Your task to perform on an android device: turn off notifications settings in the gmail app Image 0: 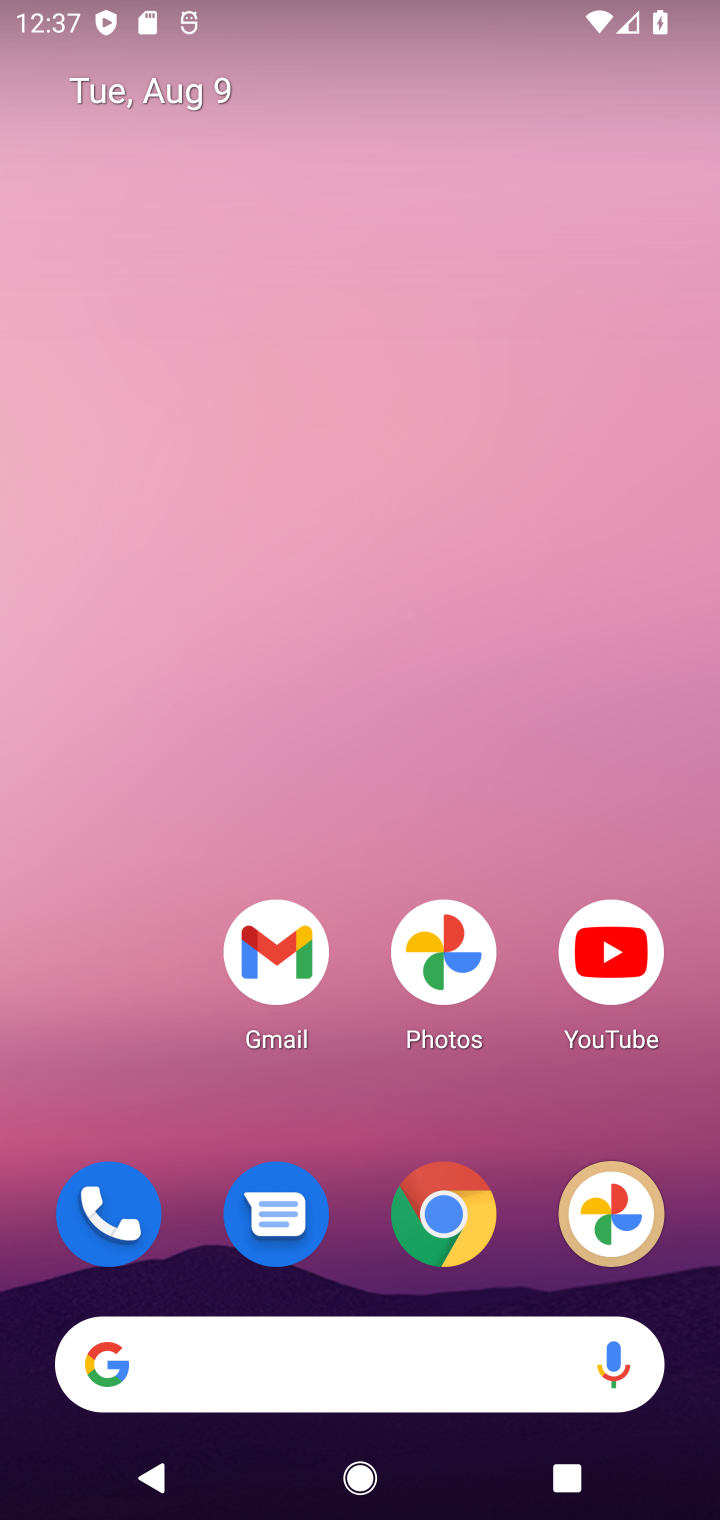
Step 0: click (351, 1248)
Your task to perform on an android device: turn off notifications settings in the gmail app Image 1: 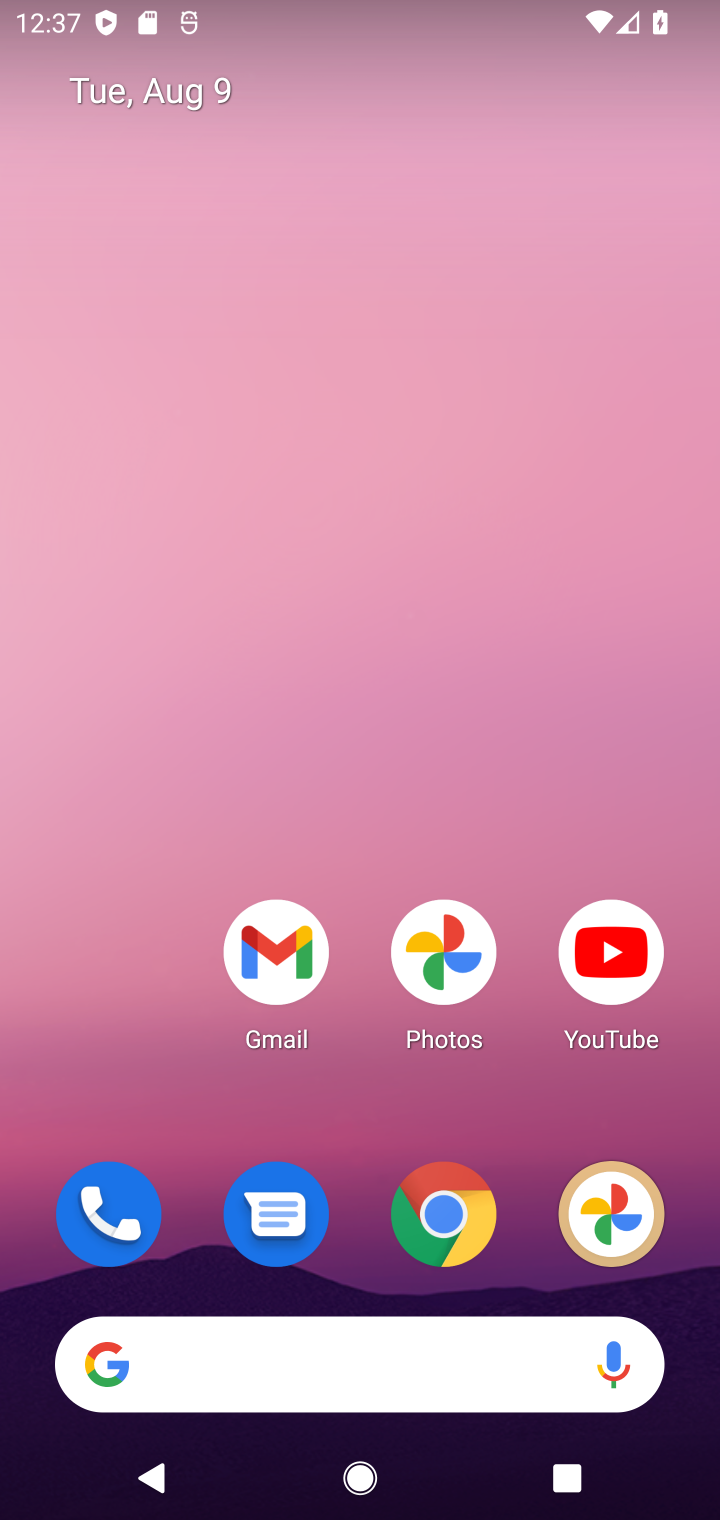
Step 1: drag from (358, 963) to (358, 150)
Your task to perform on an android device: turn off notifications settings in the gmail app Image 2: 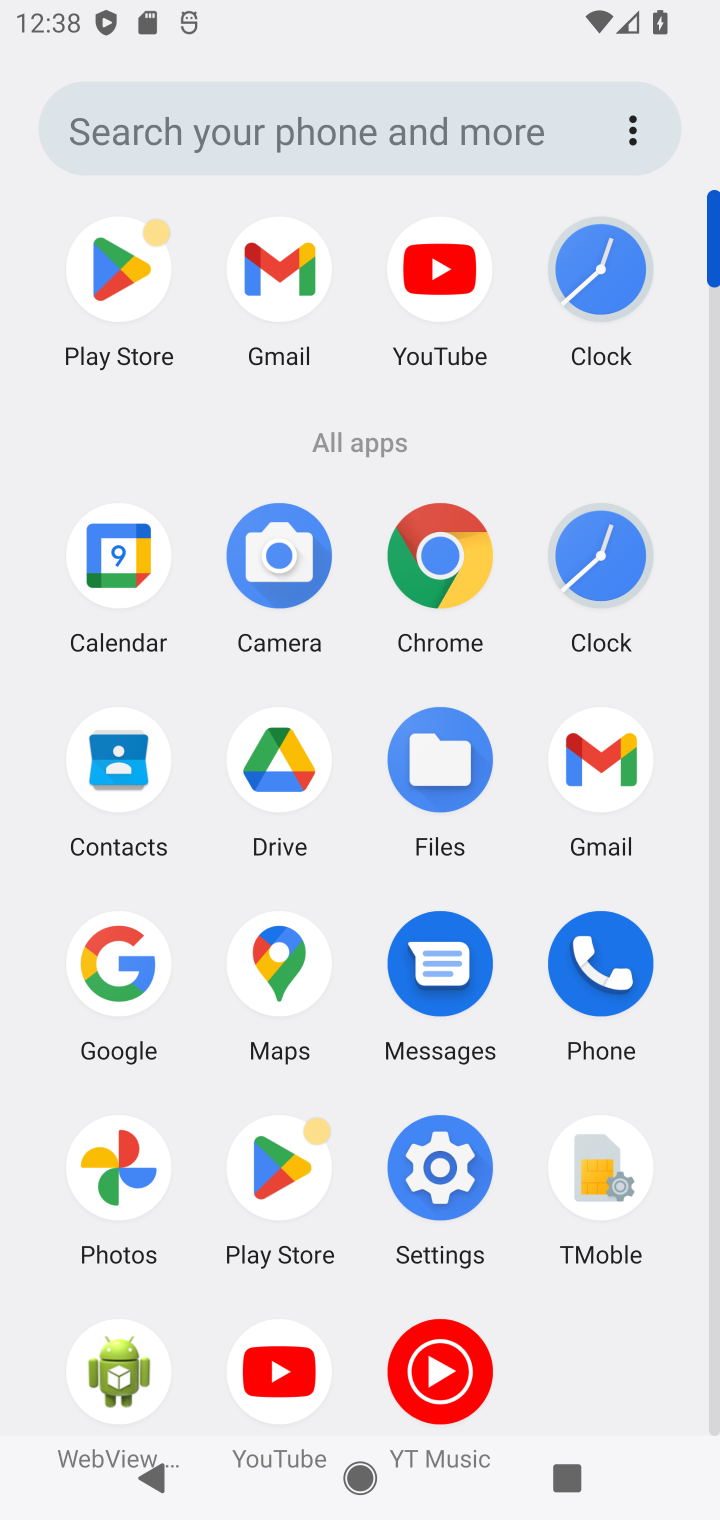
Step 2: click (282, 280)
Your task to perform on an android device: turn off notifications settings in the gmail app Image 3: 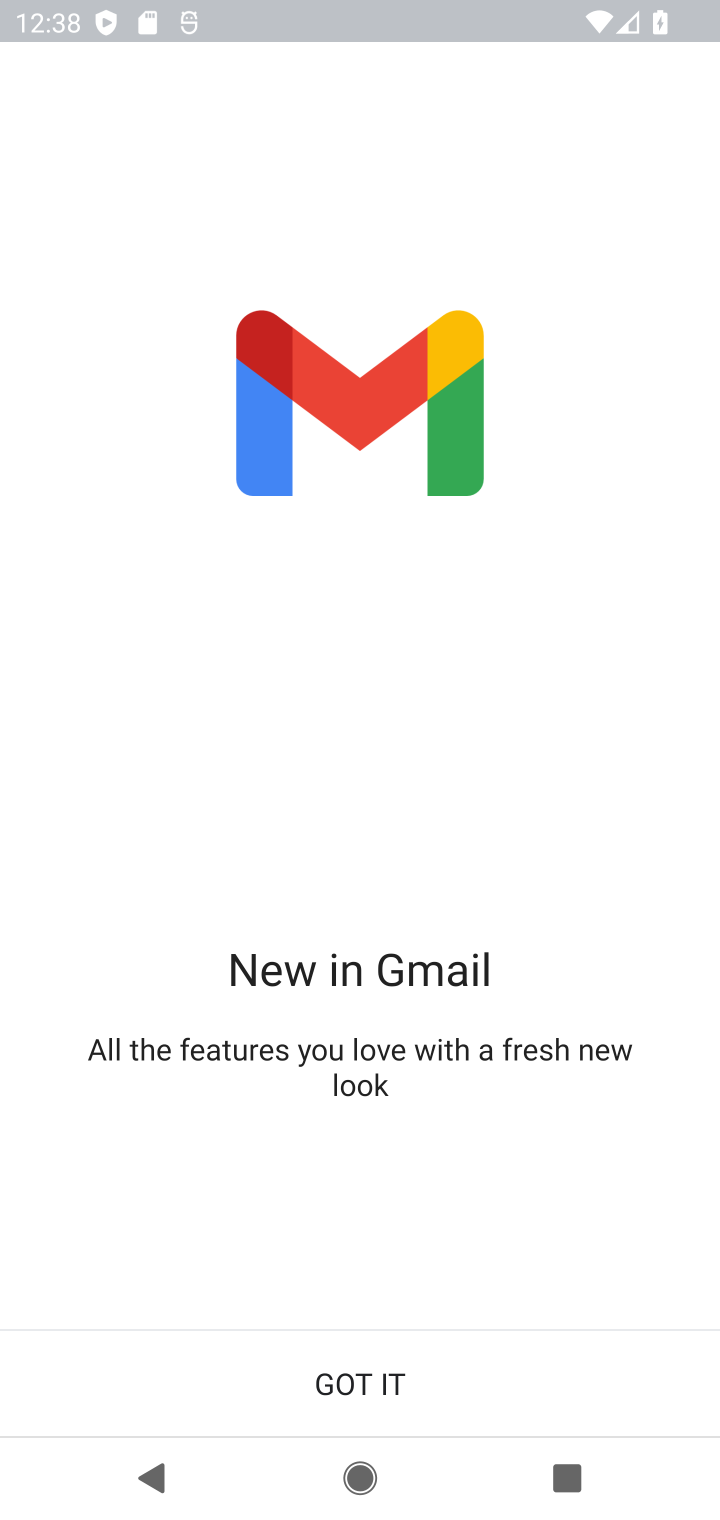
Step 3: click (382, 1358)
Your task to perform on an android device: turn off notifications settings in the gmail app Image 4: 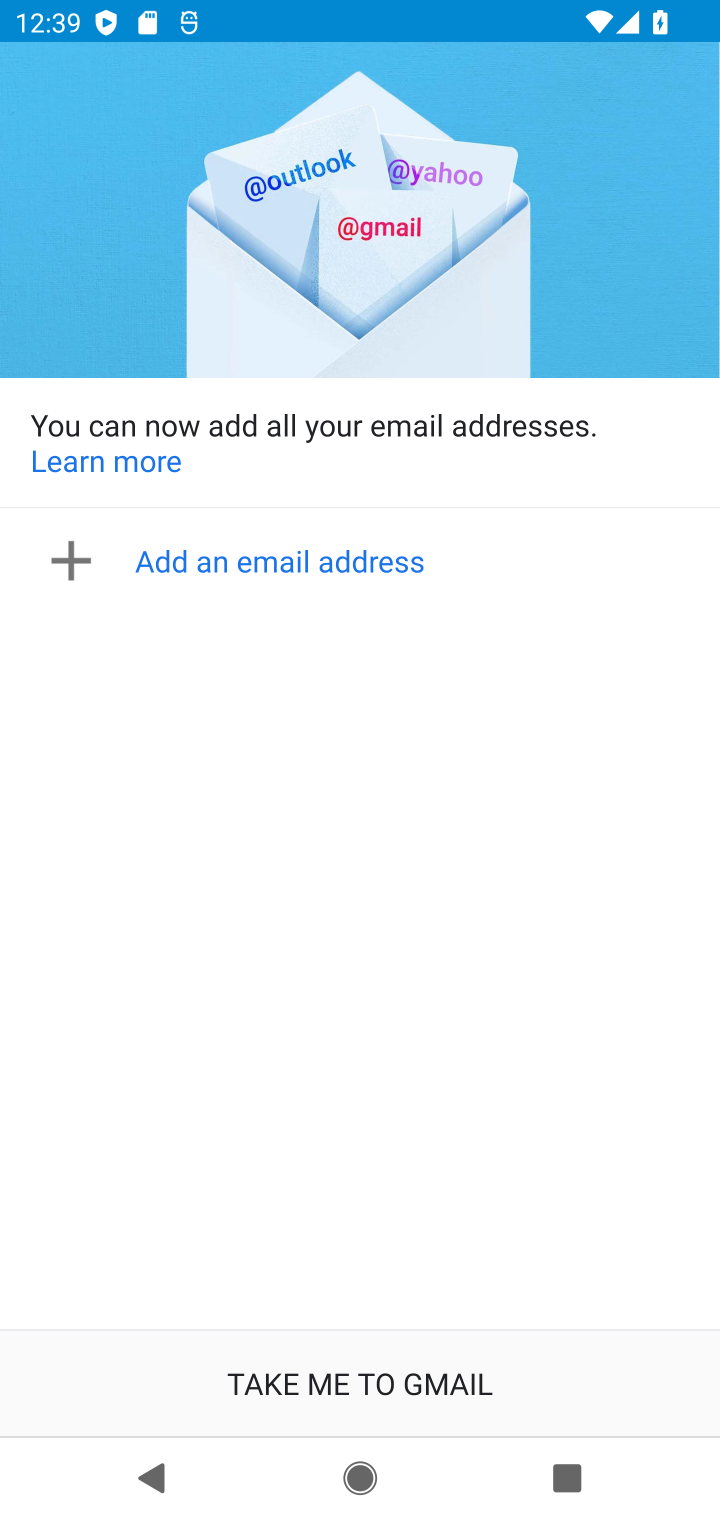
Step 4: click (382, 1358)
Your task to perform on an android device: turn off notifications settings in the gmail app Image 5: 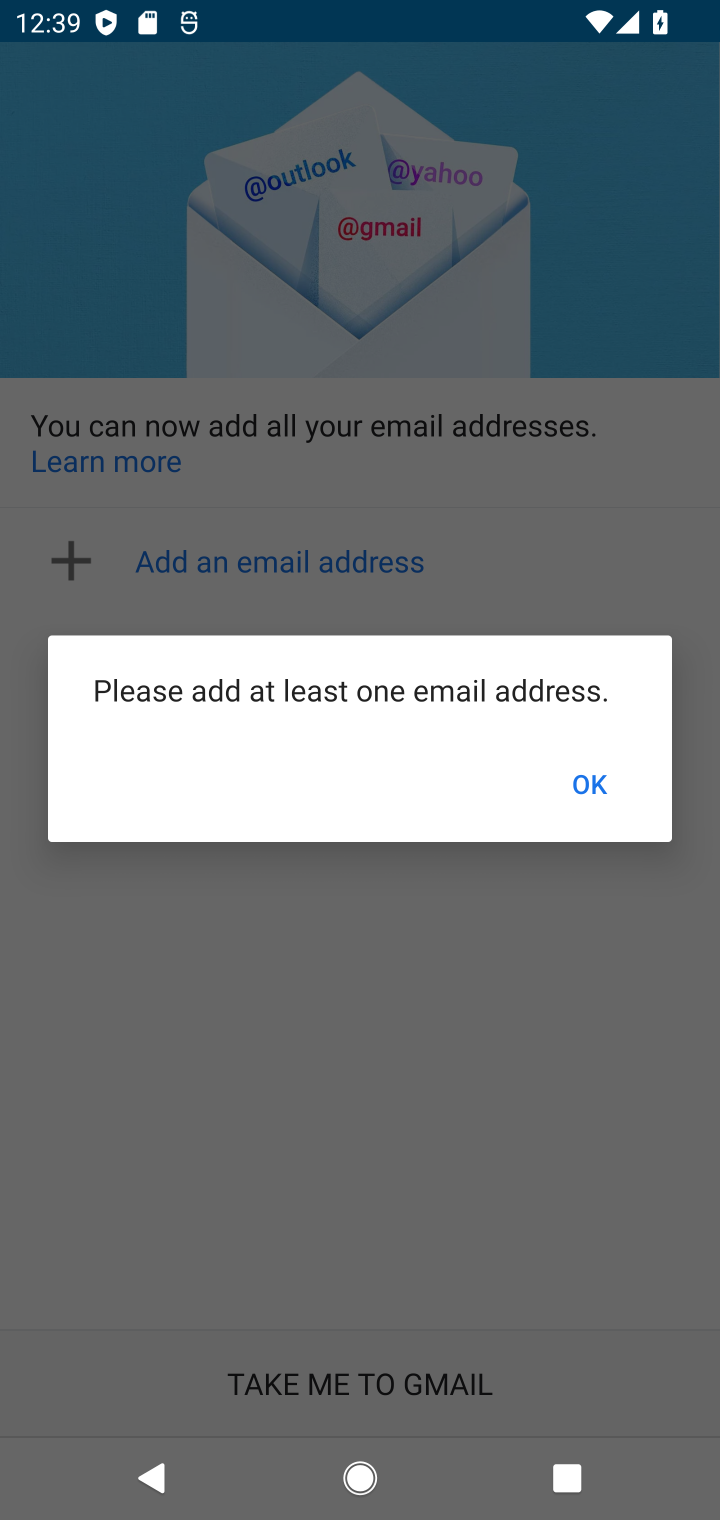
Step 5: task complete